Your task to perform on an android device: Add usb-c to the cart on bestbuy.com, then select checkout. Image 0: 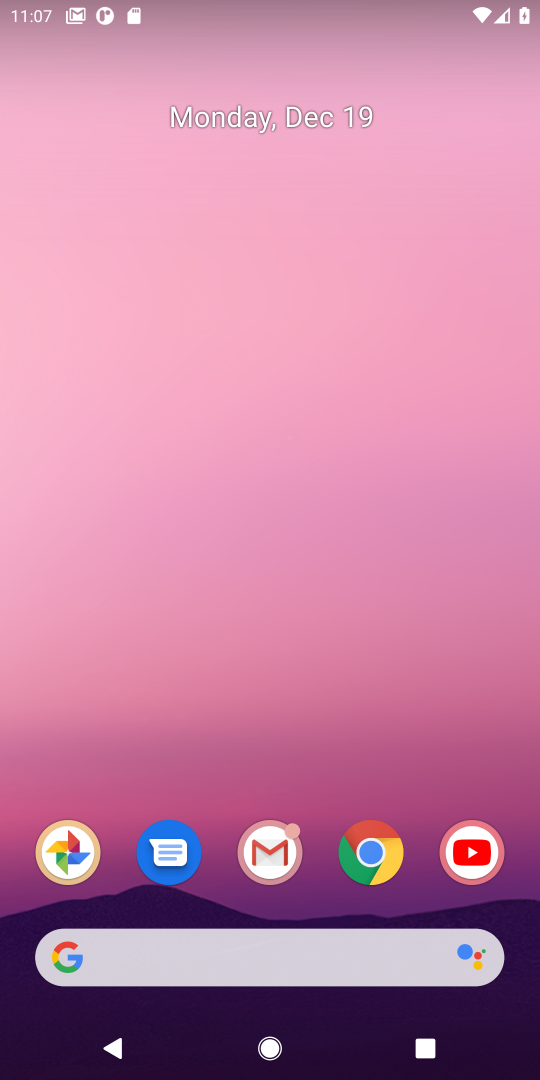
Step 0: click (365, 856)
Your task to perform on an android device: Add usb-c to the cart on bestbuy.com, then select checkout. Image 1: 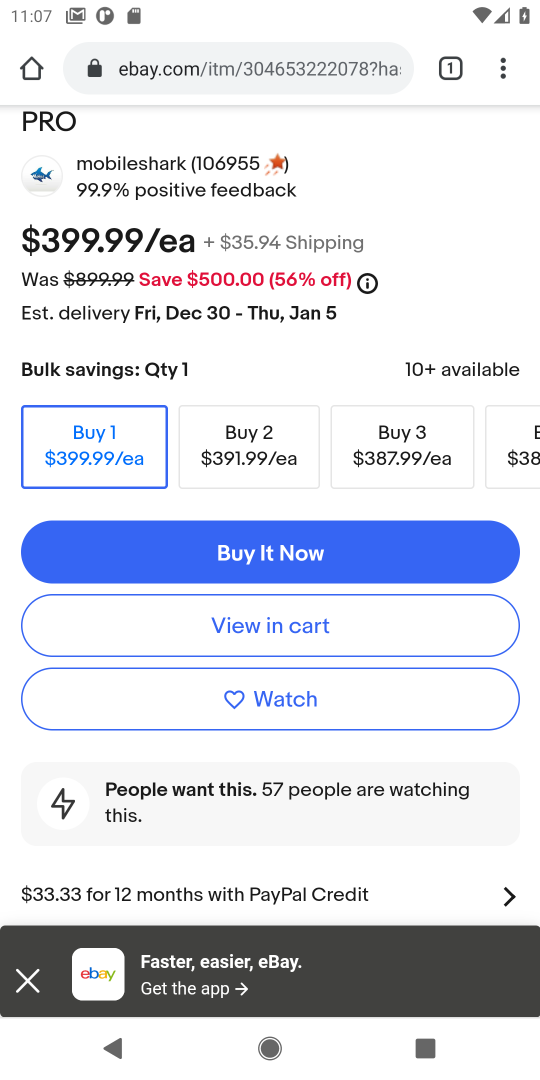
Step 1: click (172, 74)
Your task to perform on an android device: Add usb-c to the cart on bestbuy.com, then select checkout. Image 2: 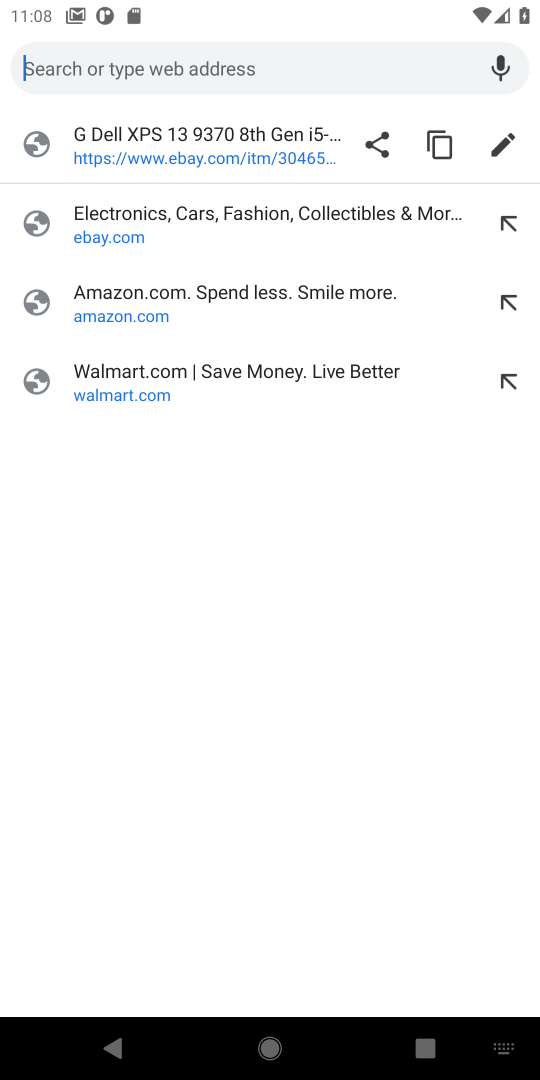
Step 2: type "bestbuy.com"
Your task to perform on an android device: Add usb-c to the cart on bestbuy.com, then select checkout. Image 3: 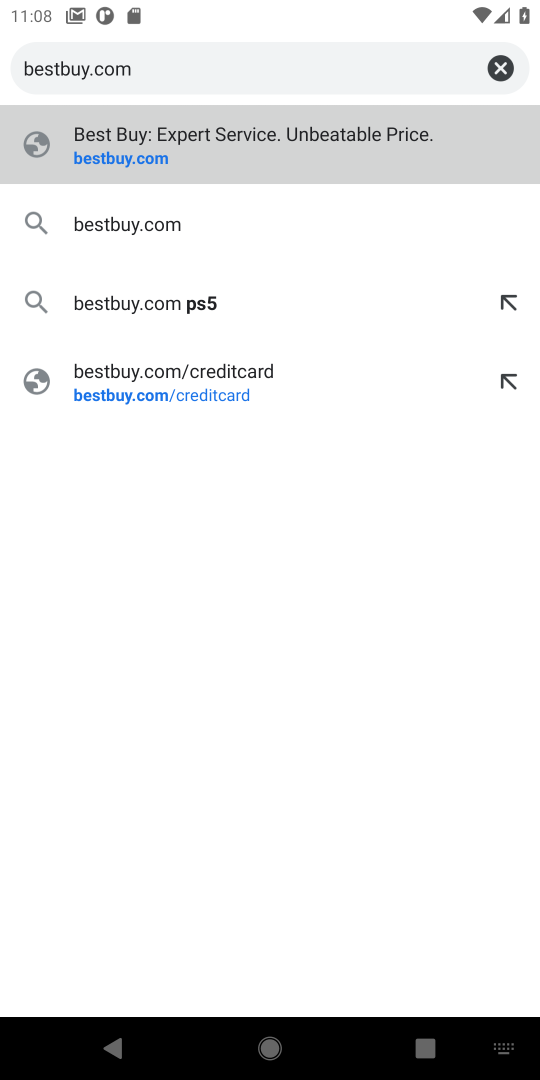
Step 3: click (109, 163)
Your task to perform on an android device: Add usb-c to the cart on bestbuy.com, then select checkout. Image 4: 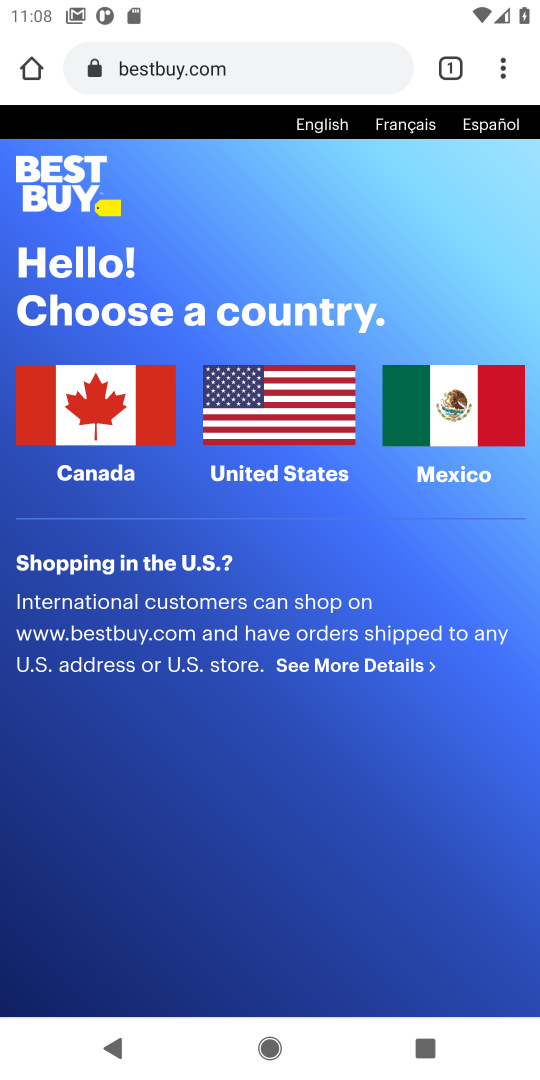
Step 4: click (262, 426)
Your task to perform on an android device: Add usb-c to the cart on bestbuy.com, then select checkout. Image 5: 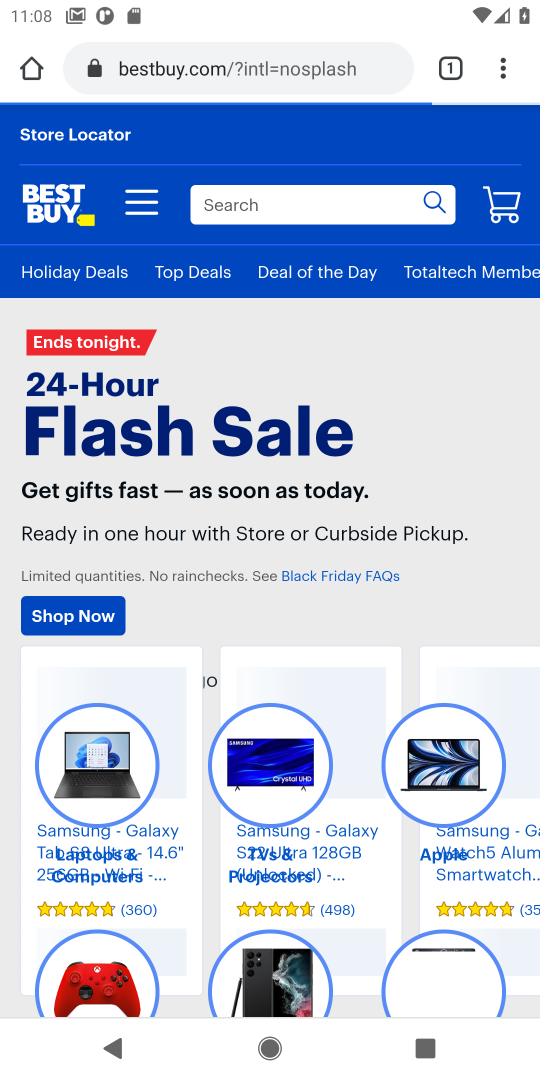
Step 5: click (248, 206)
Your task to perform on an android device: Add usb-c to the cart on bestbuy.com, then select checkout. Image 6: 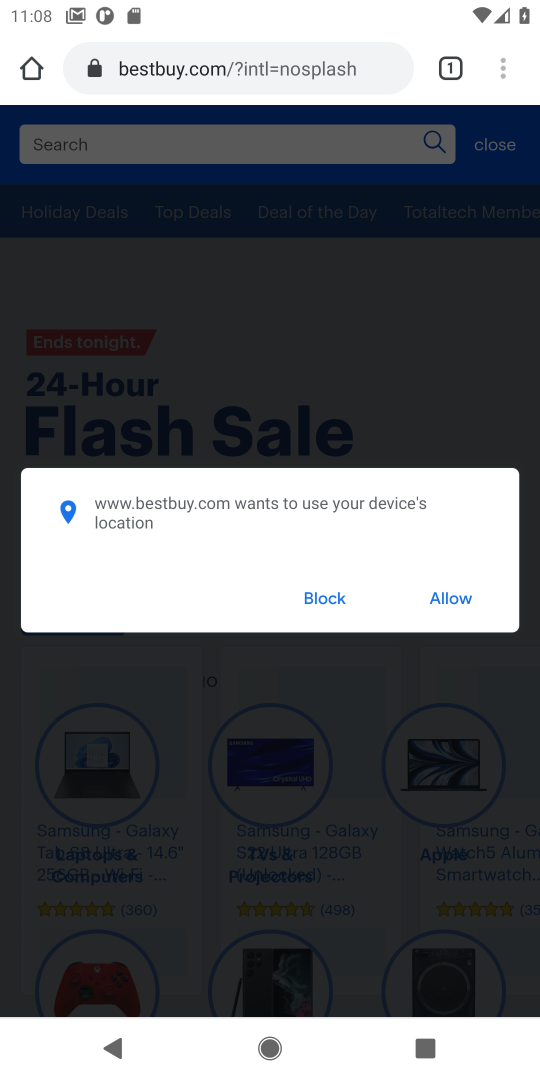
Step 6: type "usb"
Your task to perform on an android device: Add usb-c to the cart on bestbuy.com, then select checkout. Image 7: 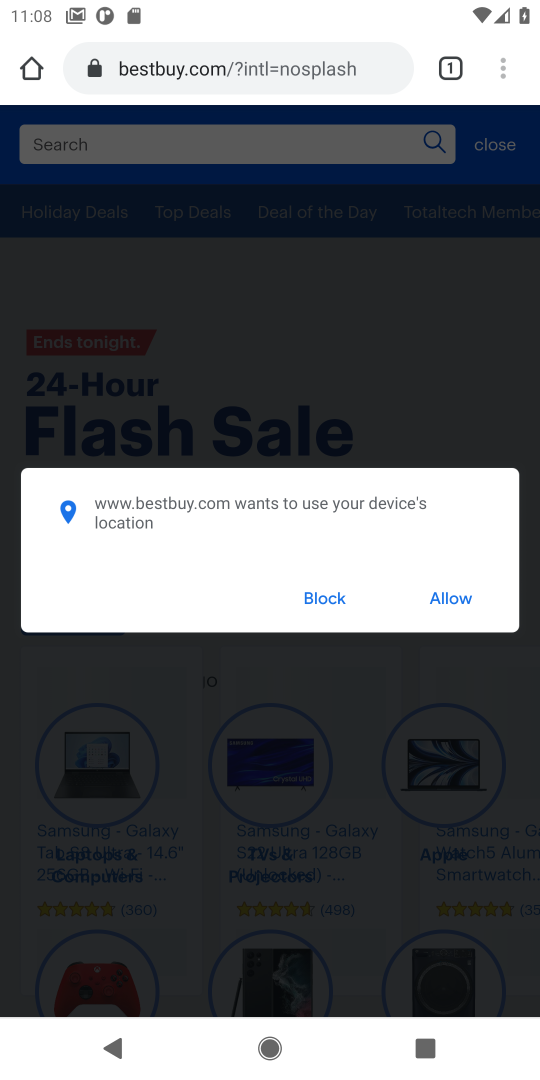
Step 7: click (336, 588)
Your task to perform on an android device: Add usb-c to the cart on bestbuy.com, then select checkout. Image 8: 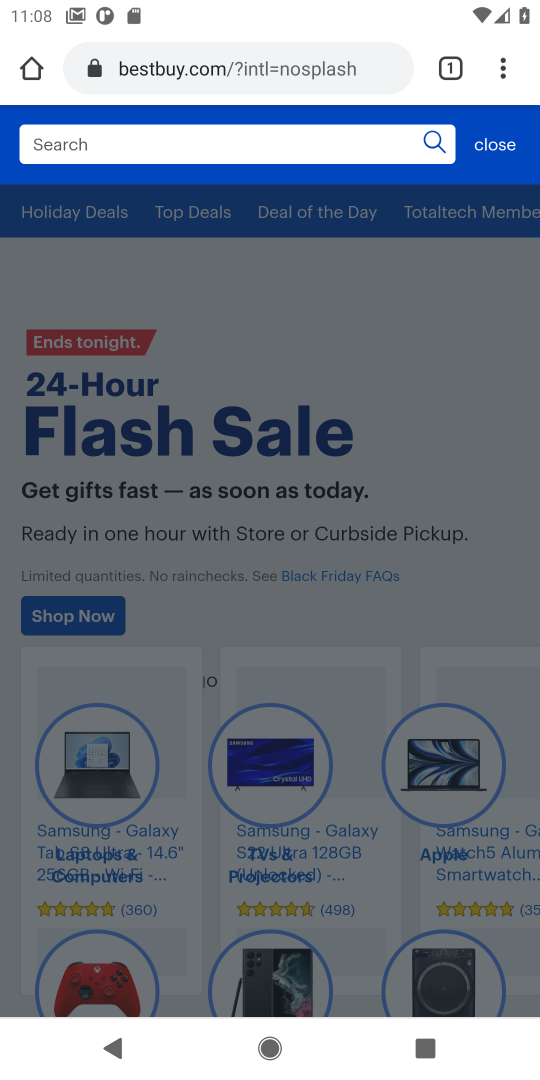
Step 8: click (47, 142)
Your task to perform on an android device: Add usb-c to the cart on bestbuy.com, then select checkout. Image 9: 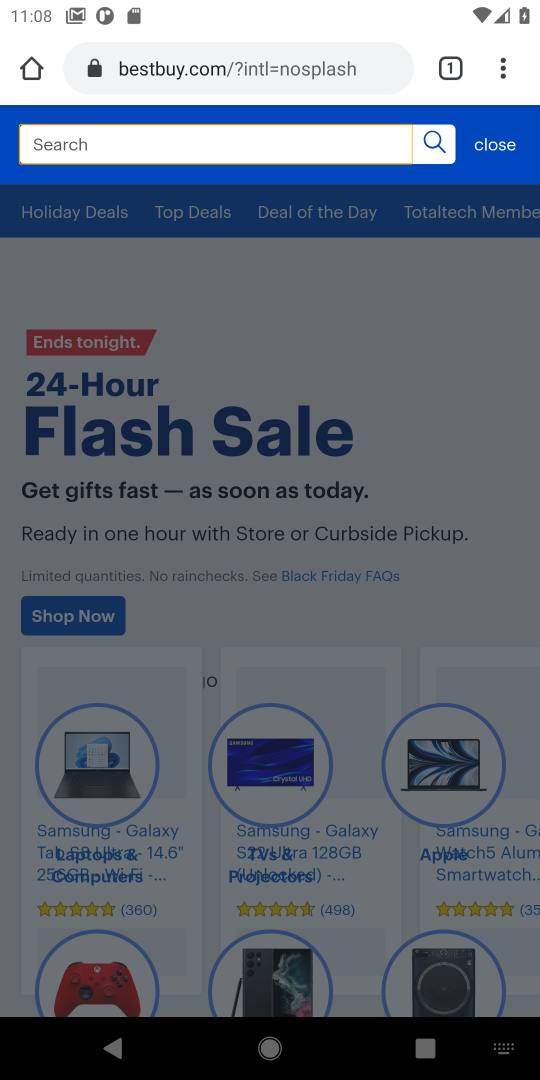
Step 9: type "usb-c"
Your task to perform on an android device: Add usb-c to the cart on bestbuy.com, then select checkout. Image 10: 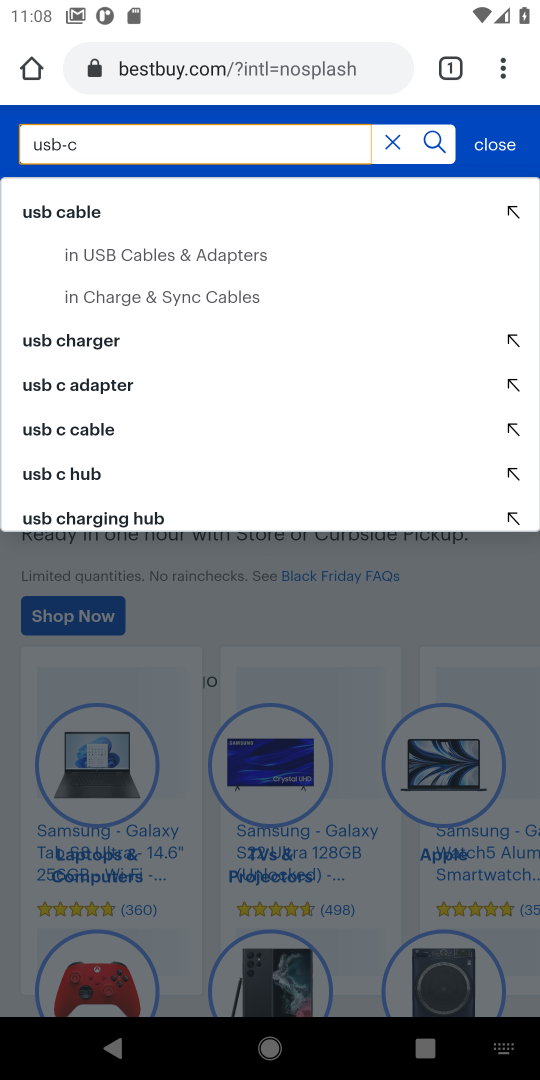
Step 10: click (433, 150)
Your task to perform on an android device: Add usb-c to the cart on bestbuy.com, then select checkout. Image 11: 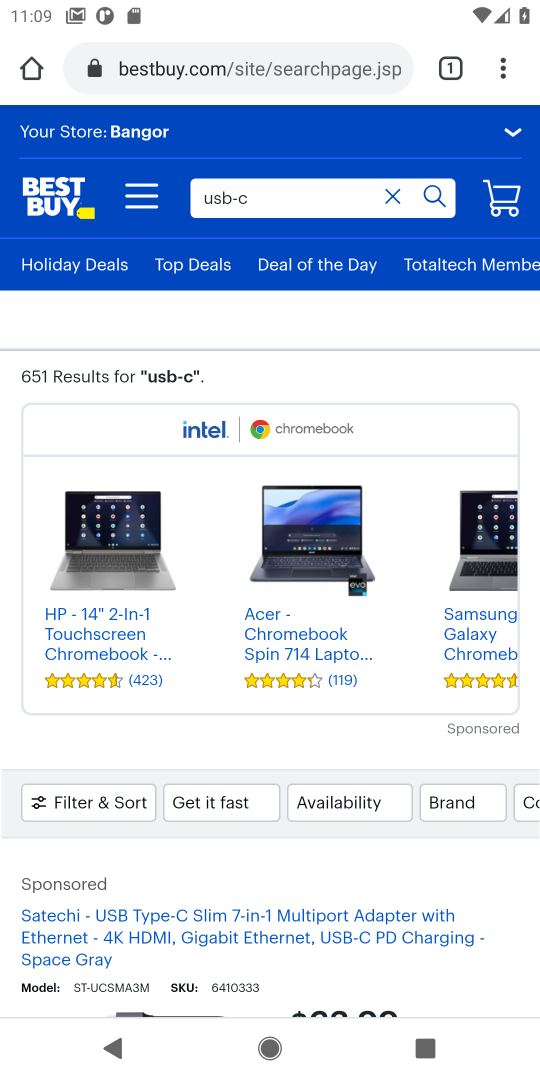
Step 11: drag from (180, 841) to (205, 467)
Your task to perform on an android device: Add usb-c to the cart on bestbuy.com, then select checkout. Image 12: 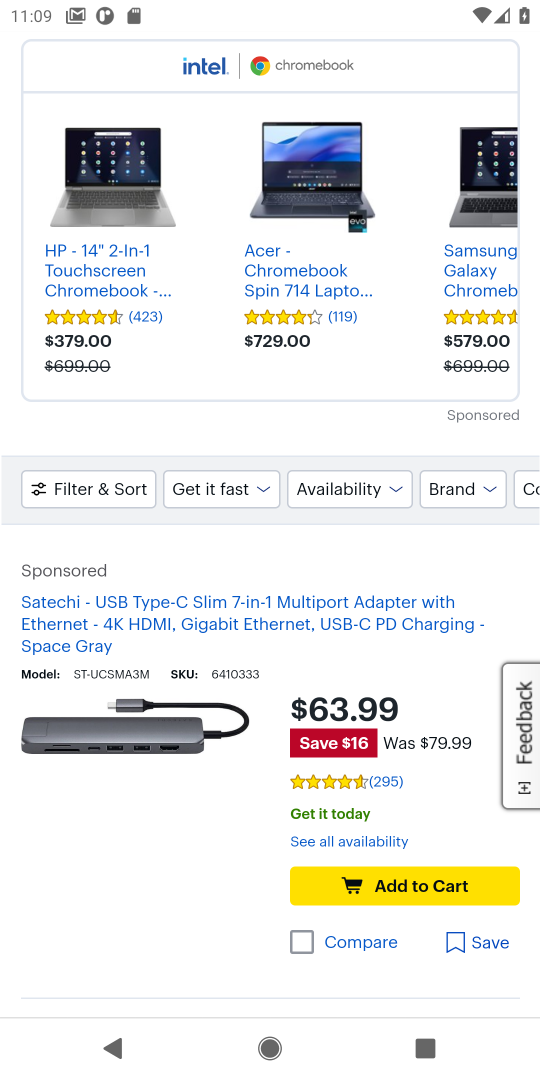
Step 12: click (375, 879)
Your task to perform on an android device: Add usb-c to the cart on bestbuy.com, then select checkout. Image 13: 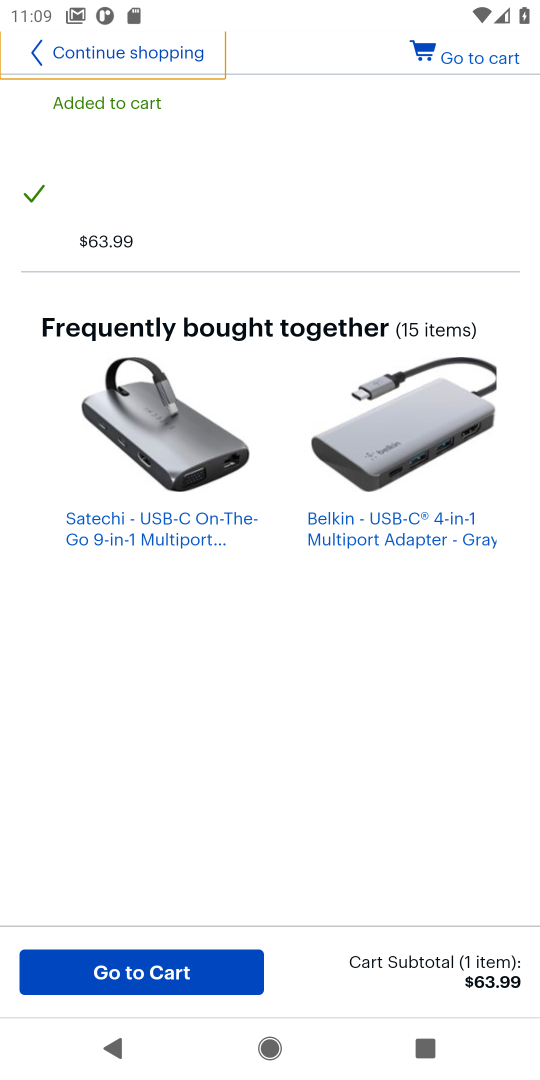
Step 13: click (482, 62)
Your task to perform on an android device: Add usb-c to the cart on bestbuy.com, then select checkout. Image 14: 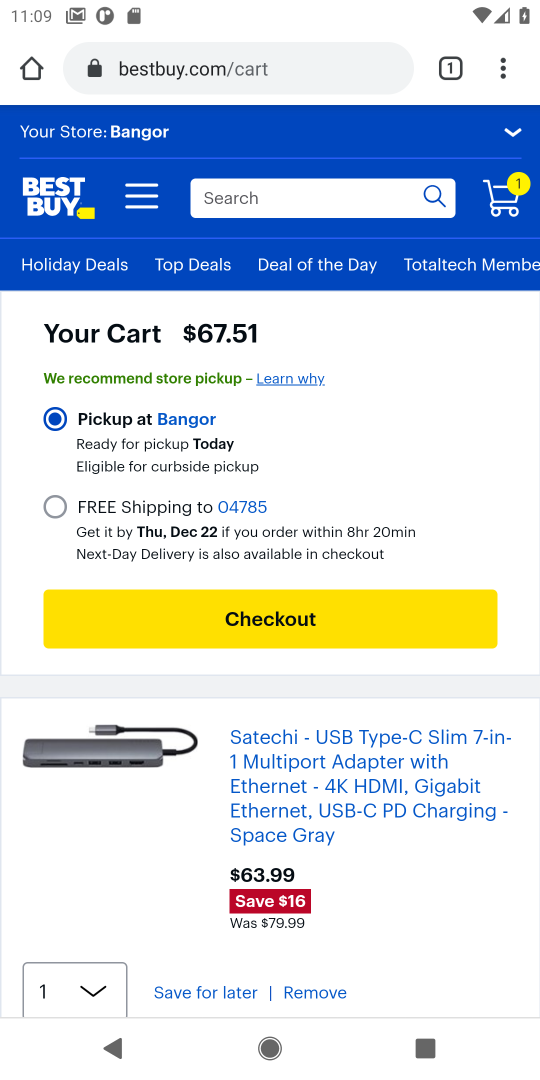
Step 14: click (259, 622)
Your task to perform on an android device: Add usb-c to the cart on bestbuy.com, then select checkout. Image 15: 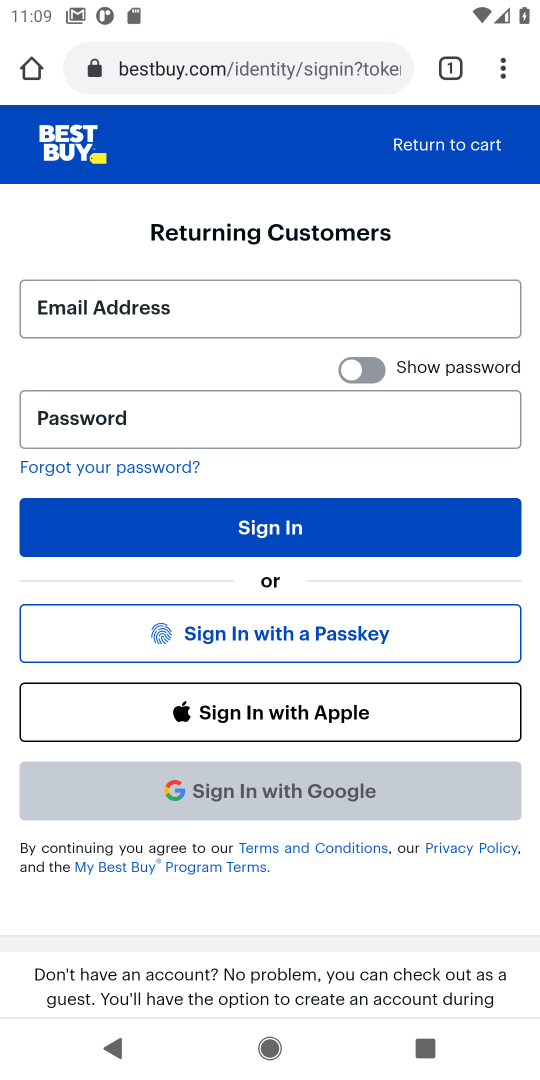
Step 15: task complete